Your task to perform on an android device: turn notification dots off Image 0: 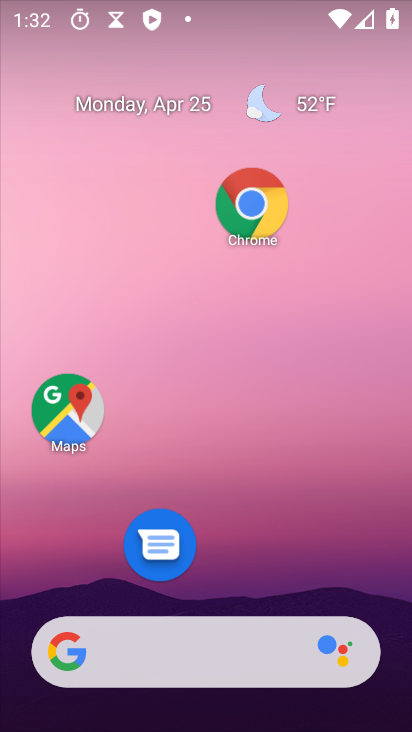
Step 0: drag from (326, 683) to (411, 169)
Your task to perform on an android device: turn notification dots off Image 1: 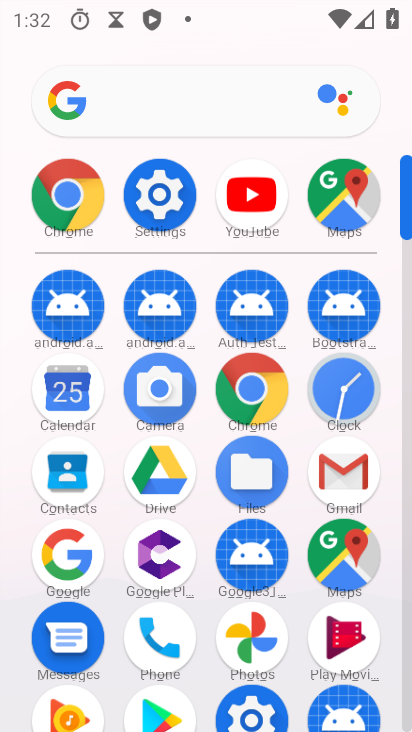
Step 1: click (149, 217)
Your task to perform on an android device: turn notification dots off Image 2: 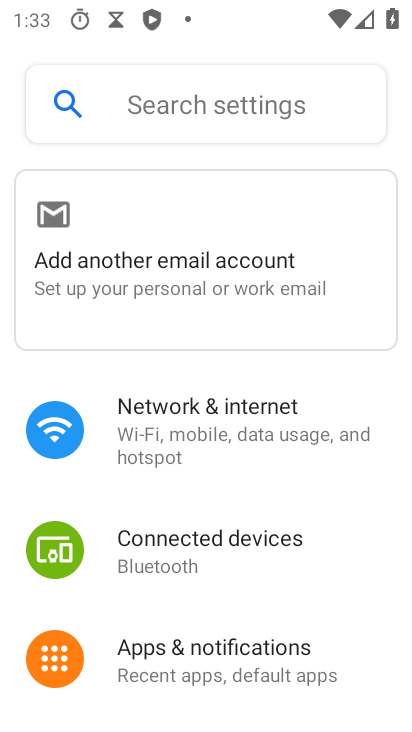
Step 2: click (176, 106)
Your task to perform on an android device: turn notification dots off Image 3: 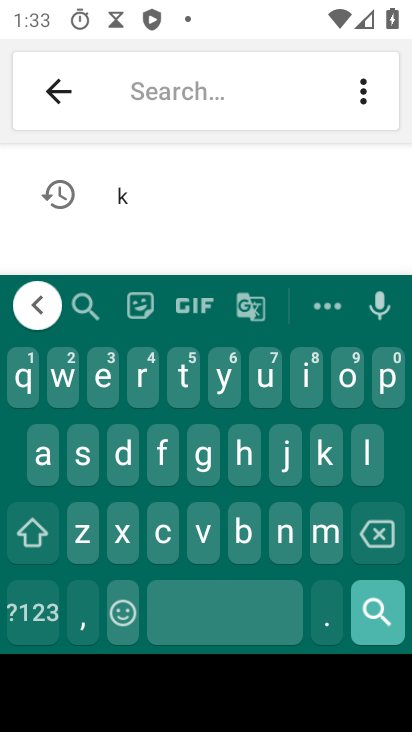
Step 3: click (122, 456)
Your task to perform on an android device: turn notification dots off Image 4: 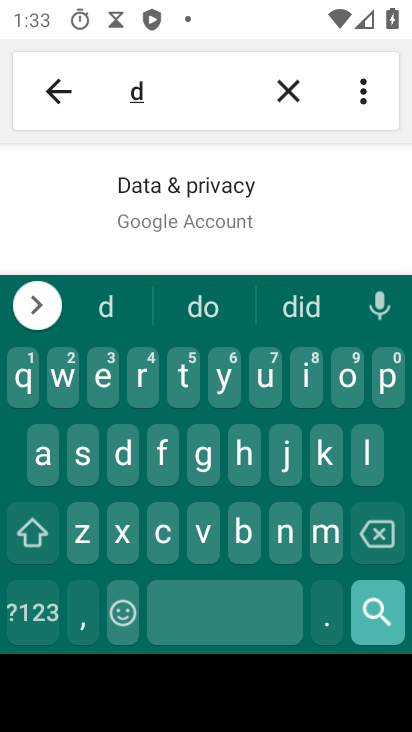
Step 4: click (343, 382)
Your task to perform on an android device: turn notification dots off Image 5: 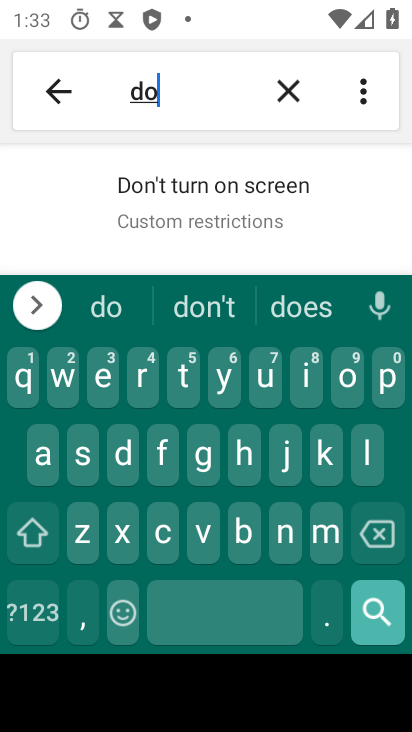
Step 5: click (188, 382)
Your task to perform on an android device: turn notification dots off Image 6: 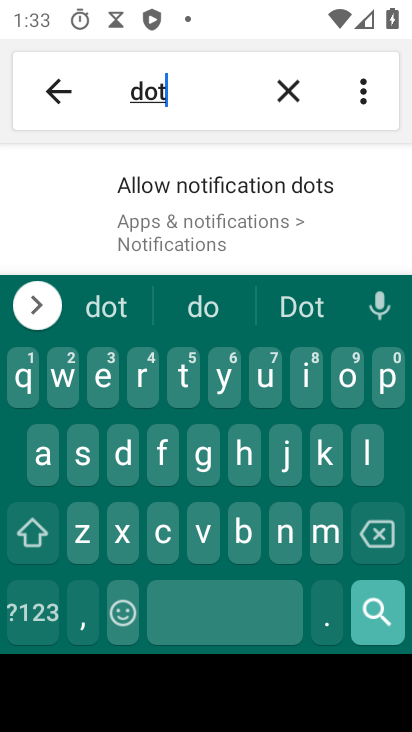
Step 6: click (243, 221)
Your task to perform on an android device: turn notification dots off Image 7: 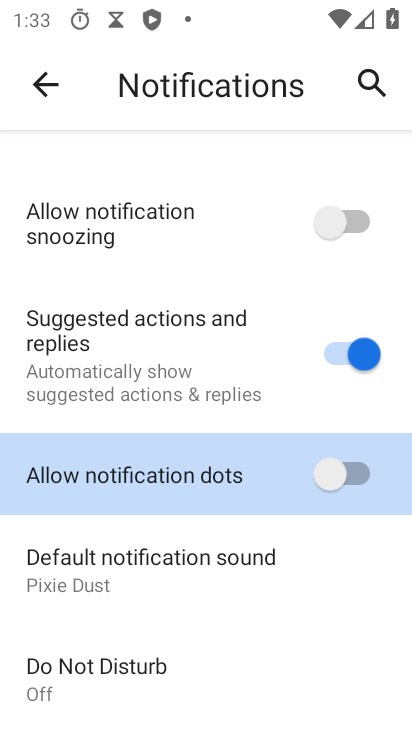
Step 7: click (150, 466)
Your task to perform on an android device: turn notification dots off Image 8: 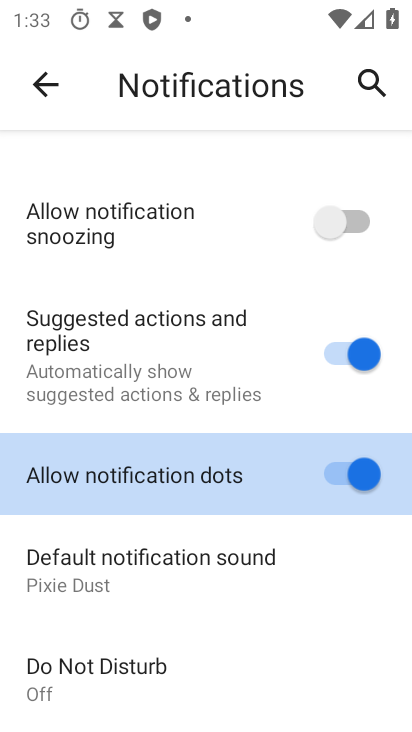
Step 8: click (151, 465)
Your task to perform on an android device: turn notification dots off Image 9: 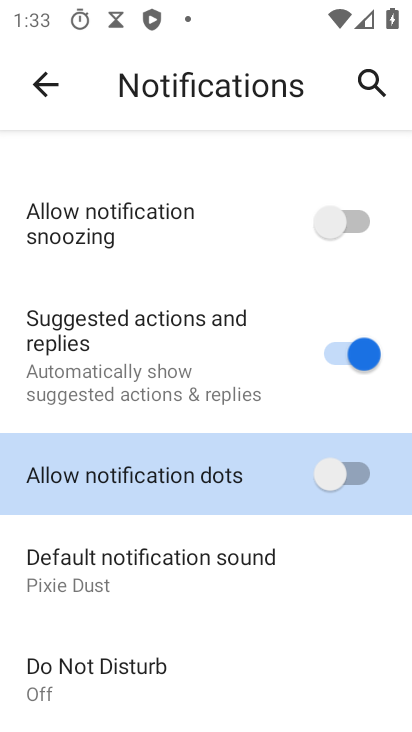
Step 9: task complete